Your task to perform on an android device: turn off location history Image 0: 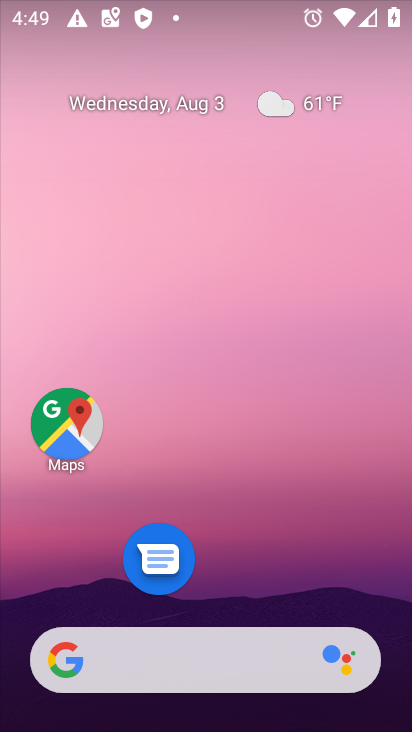
Step 0: drag from (294, 624) to (291, 196)
Your task to perform on an android device: turn off location history Image 1: 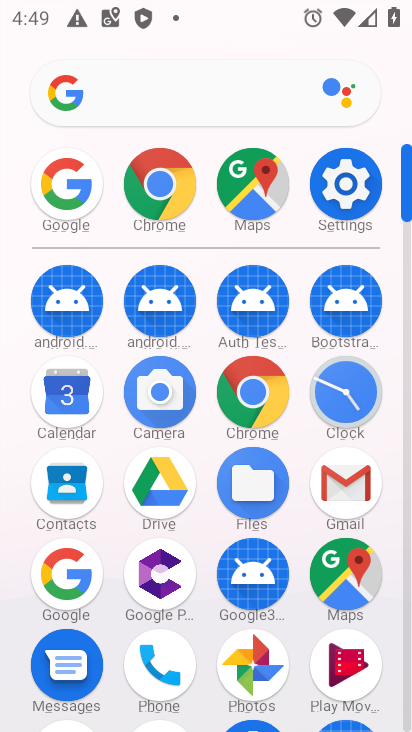
Step 1: click (342, 195)
Your task to perform on an android device: turn off location history Image 2: 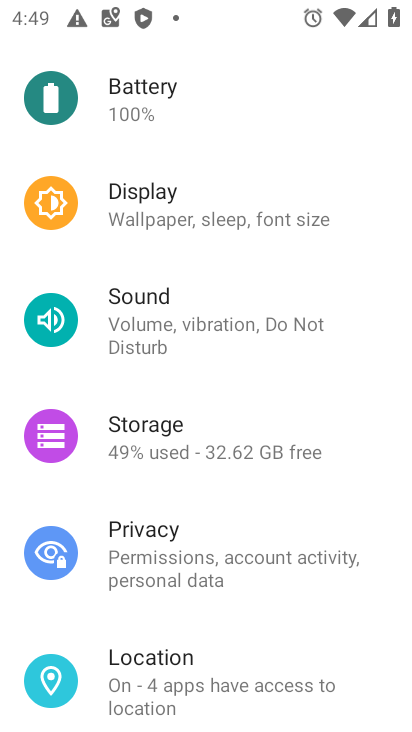
Step 2: drag from (196, 698) to (191, 339)
Your task to perform on an android device: turn off location history Image 3: 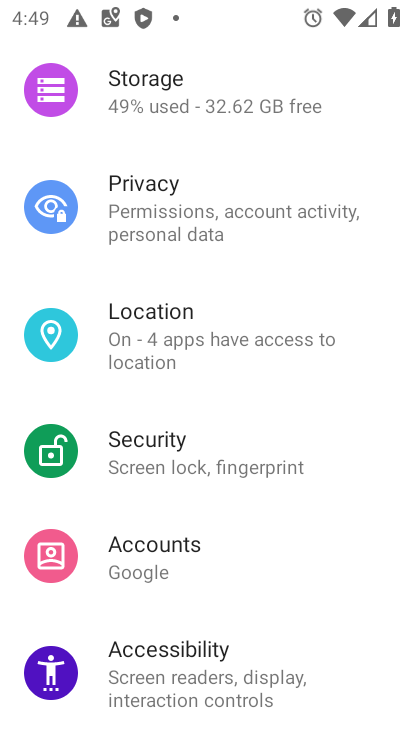
Step 3: click (178, 320)
Your task to perform on an android device: turn off location history Image 4: 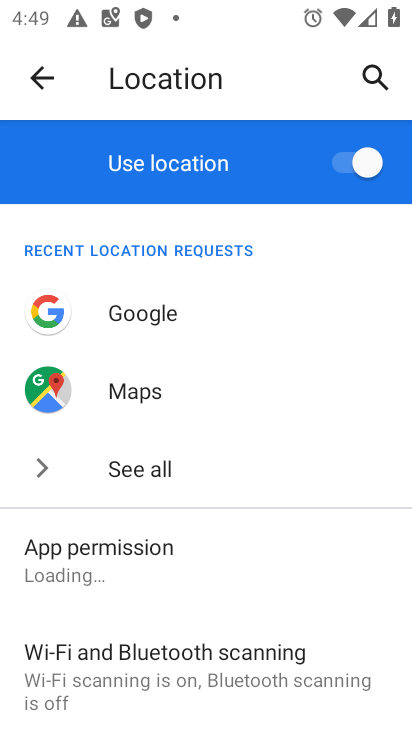
Step 4: drag from (172, 670) to (178, 307)
Your task to perform on an android device: turn off location history Image 5: 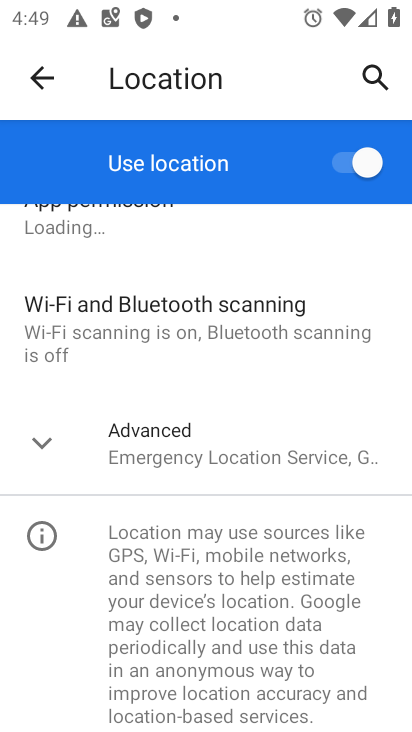
Step 5: click (180, 450)
Your task to perform on an android device: turn off location history Image 6: 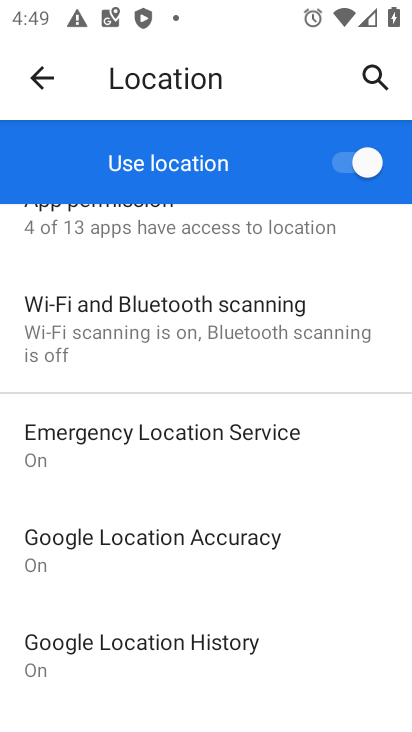
Step 6: click (172, 649)
Your task to perform on an android device: turn off location history Image 7: 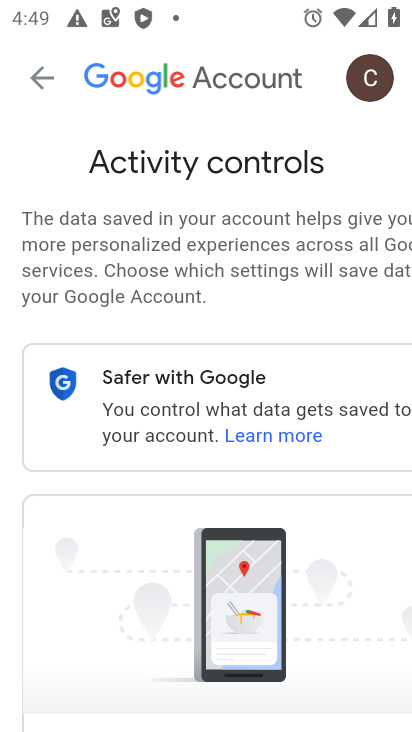
Step 7: drag from (320, 655) to (317, 204)
Your task to perform on an android device: turn off location history Image 8: 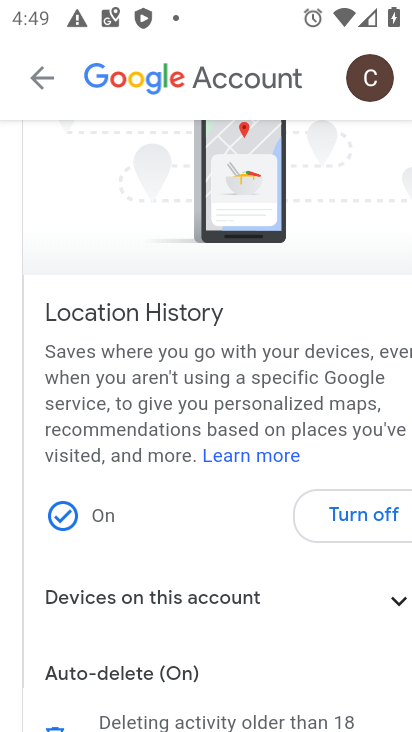
Step 8: click (334, 511)
Your task to perform on an android device: turn off location history Image 9: 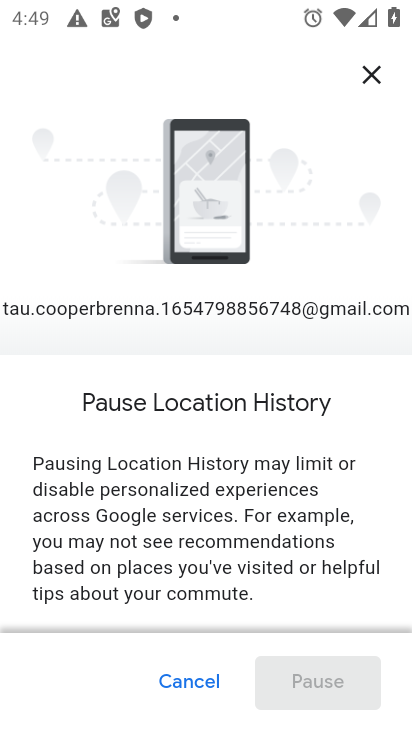
Step 9: drag from (280, 605) to (291, 229)
Your task to perform on an android device: turn off location history Image 10: 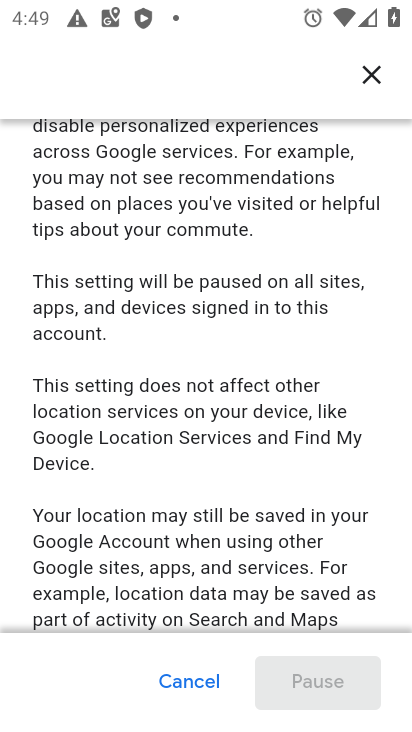
Step 10: drag from (321, 617) to (301, 235)
Your task to perform on an android device: turn off location history Image 11: 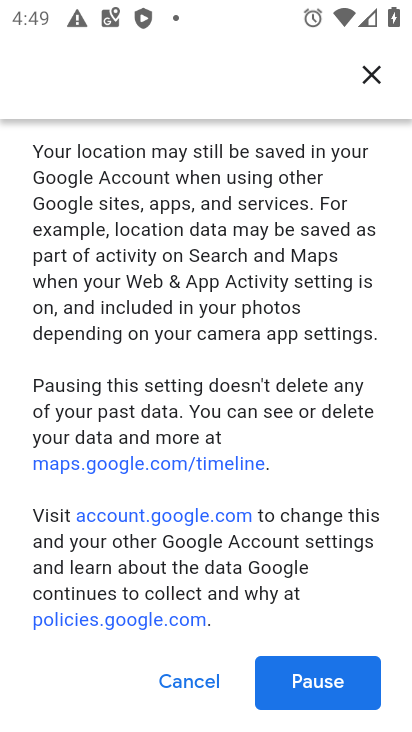
Step 11: click (308, 680)
Your task to perform on an android device: turn off location history Image 12: 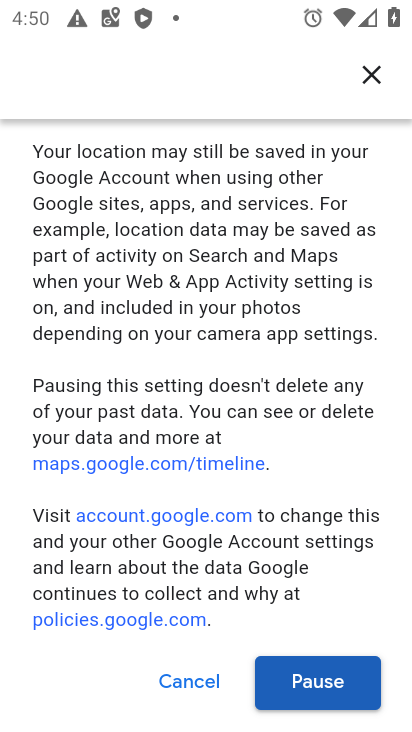
Step 12: click (289, 686)
Your task to perform on an android device: turn off location history Image 13: 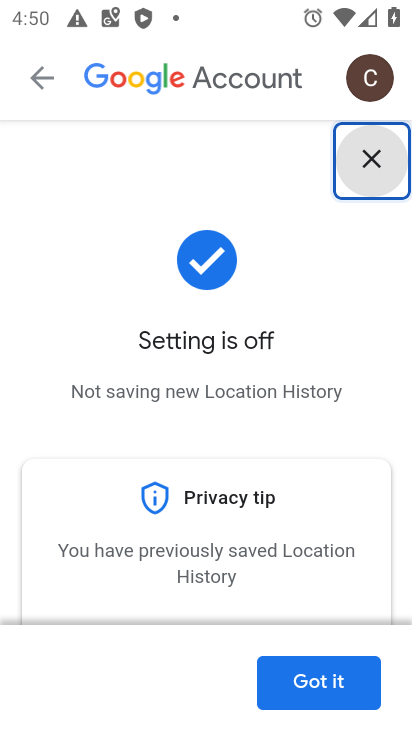
Step 13: click (344, 675)
Your task to perform on an android device: turn off location history Image 14: 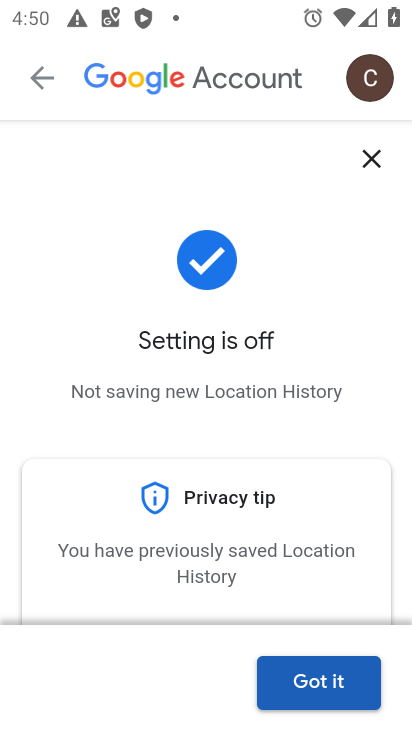
Step 14: click (327, 689)
Your task to perform on an android device: turn off location history Image 15: 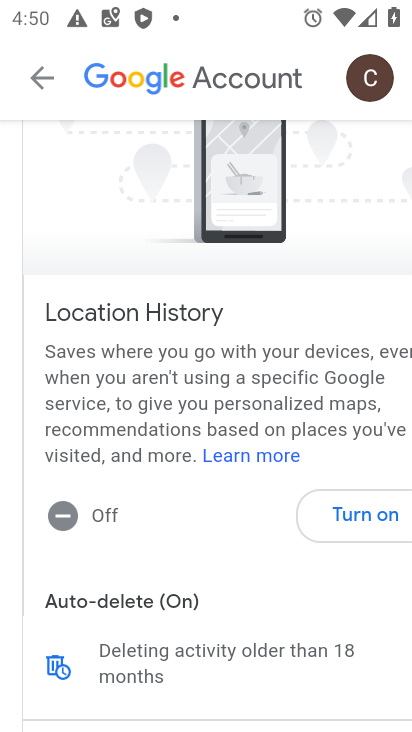
Step 15: task complete